Your task to perform on an android device: check battery use Image 0: 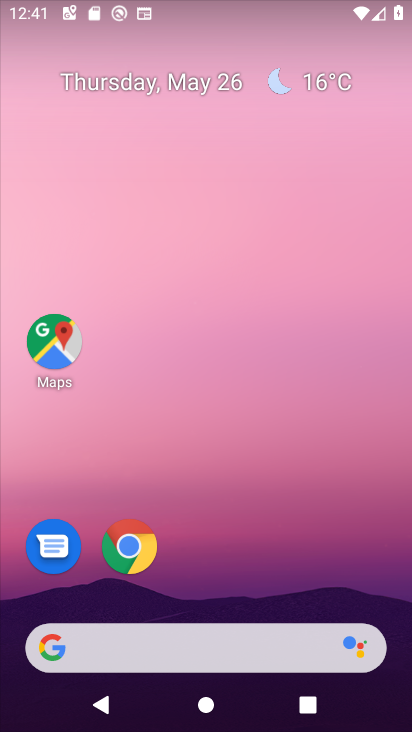
Step 0: drag from (210, 588) to (250, 215)
Your task to perform on an android device: check battery use Image 1: 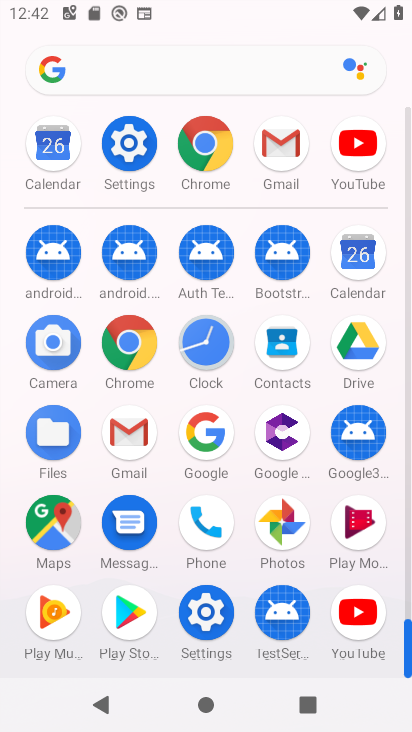
Step 1: click (110, 151)
Your task to perform on an android device: check battery use Image 2: 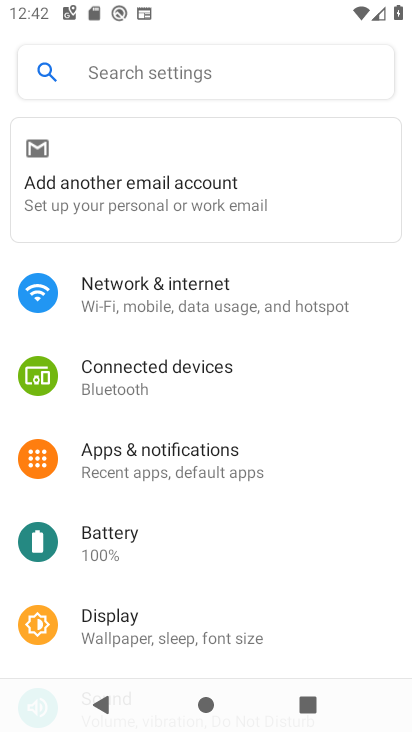
Step 2: click (76, 534)
Your task to perform on an android device: check battery use Image 3: 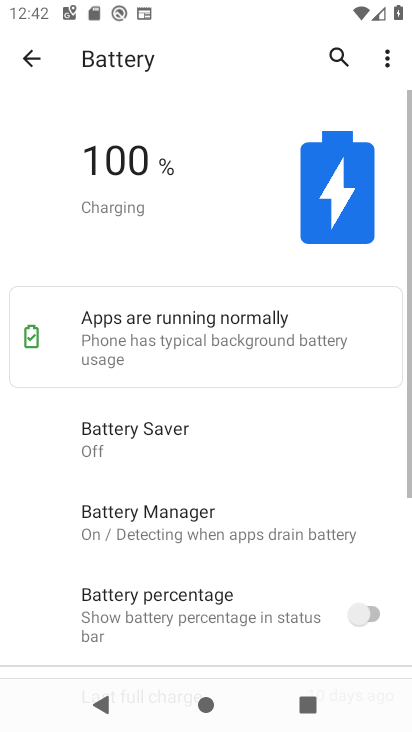
Step 3: task complete